Your task to perform on an android device: Add dell alienware to the cart on ebay.com, then select checkout. Image 0: 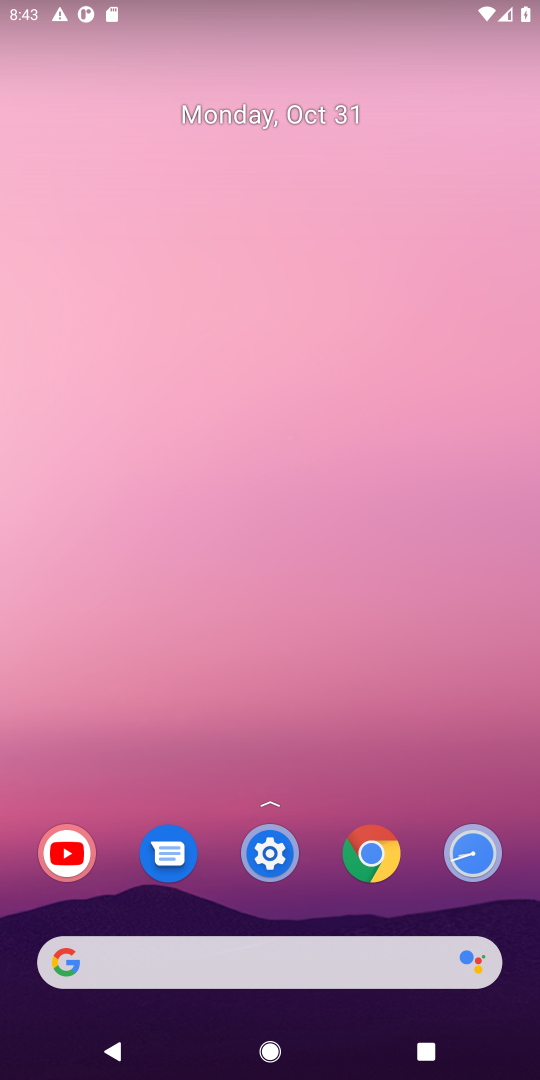
Step 0: click (247, 956)
Your task to perform on an android device: Add dell alienware to the cart on ebay.com, then select checkout. Image 1: 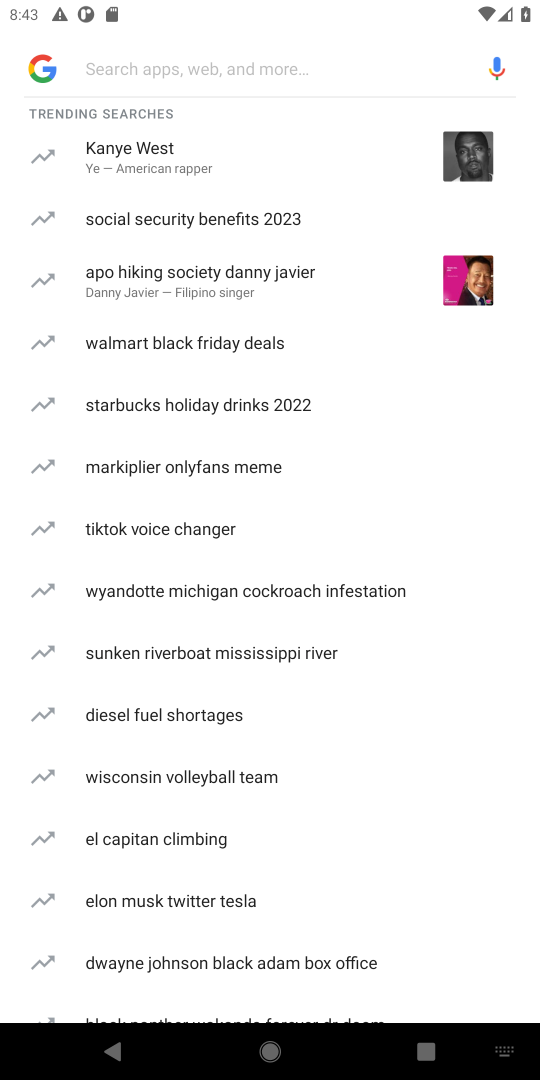
Step 1: type "ebay.com"
Your task to perform on an android device: Add dell alienware to the cart on ebay.com, then select checkout. Image 2: 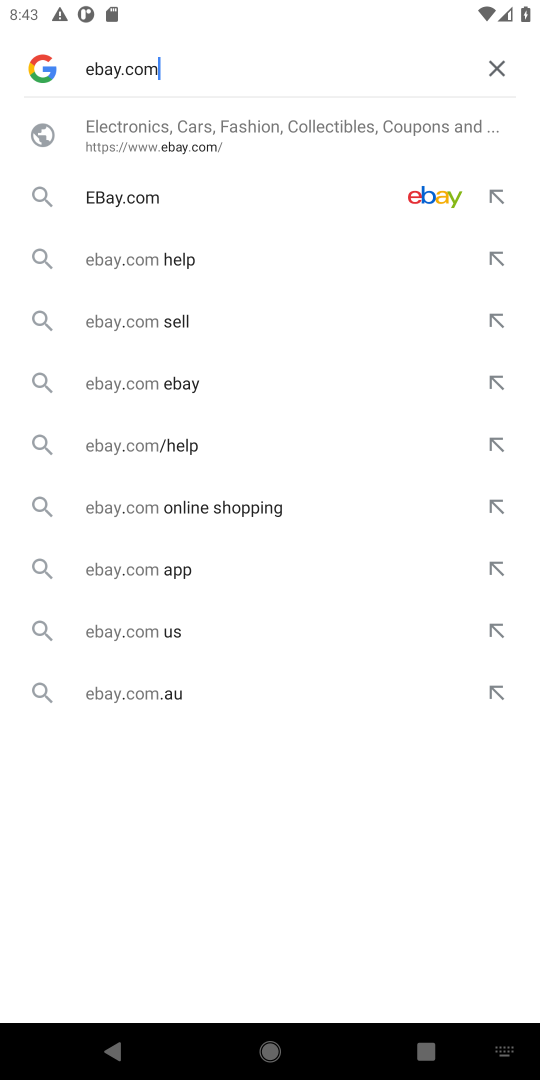
Step 2: click (109, 203)
Your task to perform on an android device: Add dell alienware to the cart on ebay.com, then select checkout. Image 3: 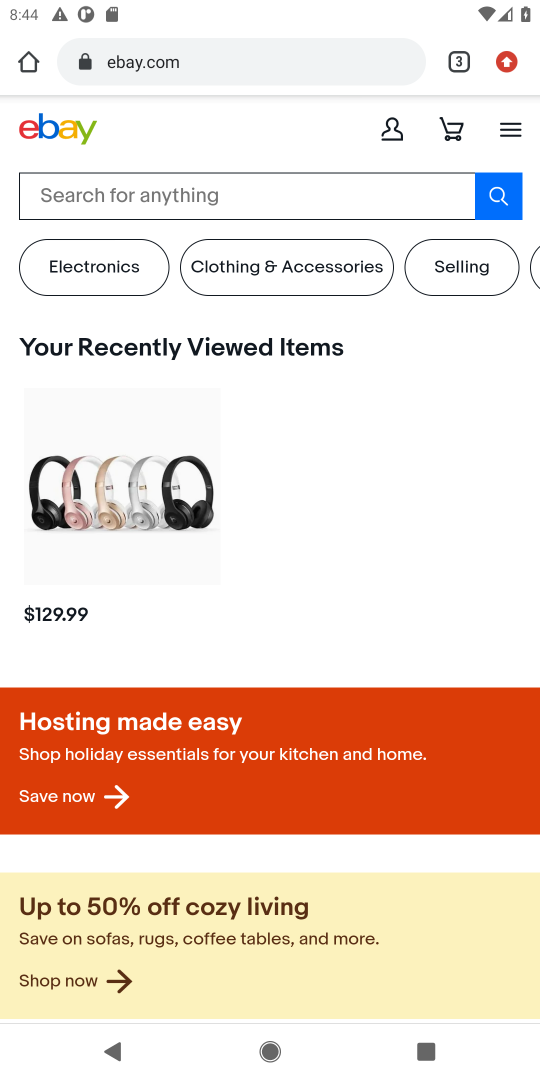
Step 3: click (131, 183)
Your task to perform on an android device: Add dell alienware to the cart on ebay.com, then select checkout. Image 4: 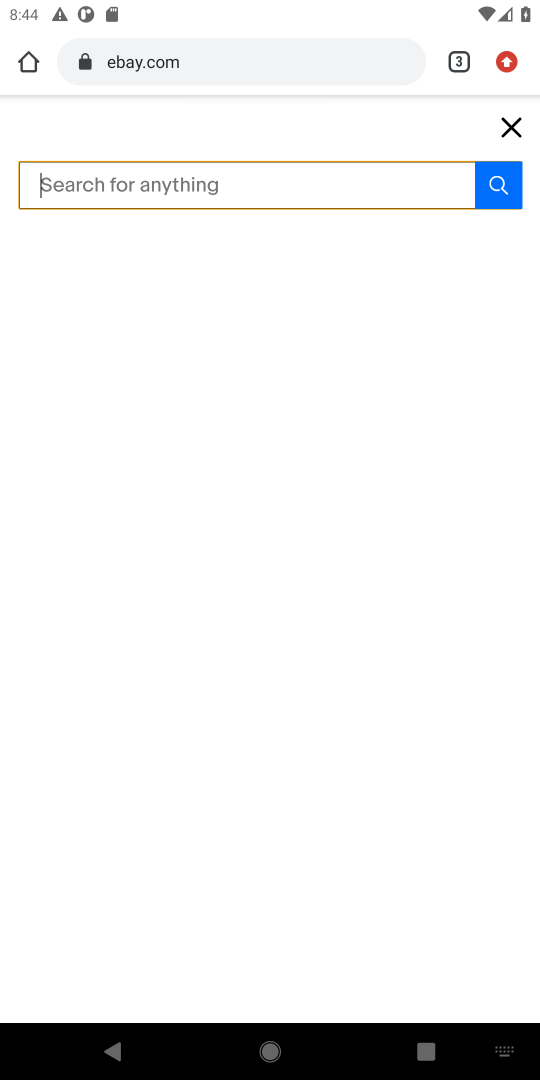
Step 4: type "dell alienware"
Your task to perform on an android device: Add dell alienware to the cart on ebay.com, then select checkout. Image 5: 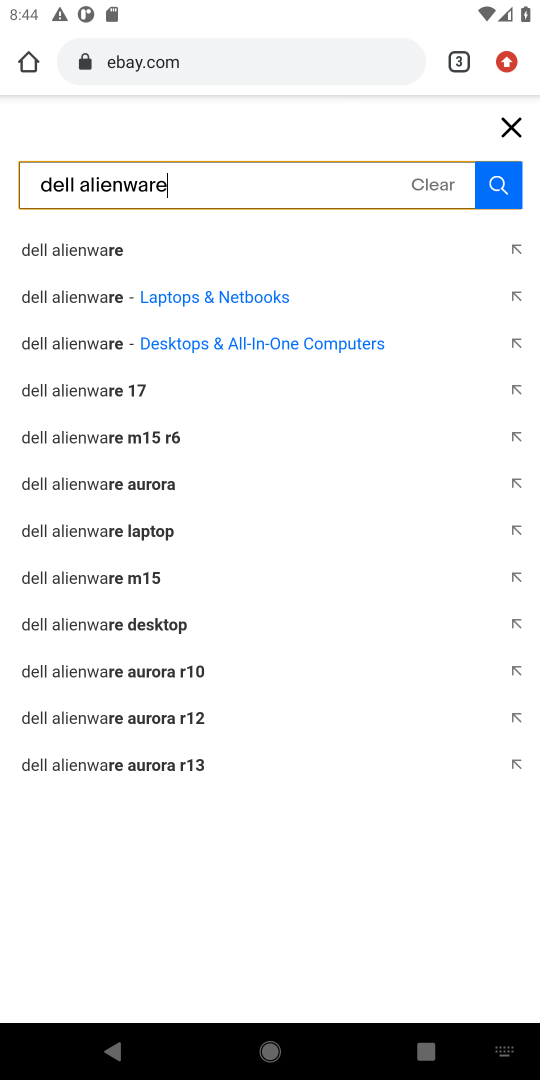
Step 5: click (59, 244)
Your task to perform on an android device: Add dell alienware to the cart on ebay.com, then select checkout. Image 6: 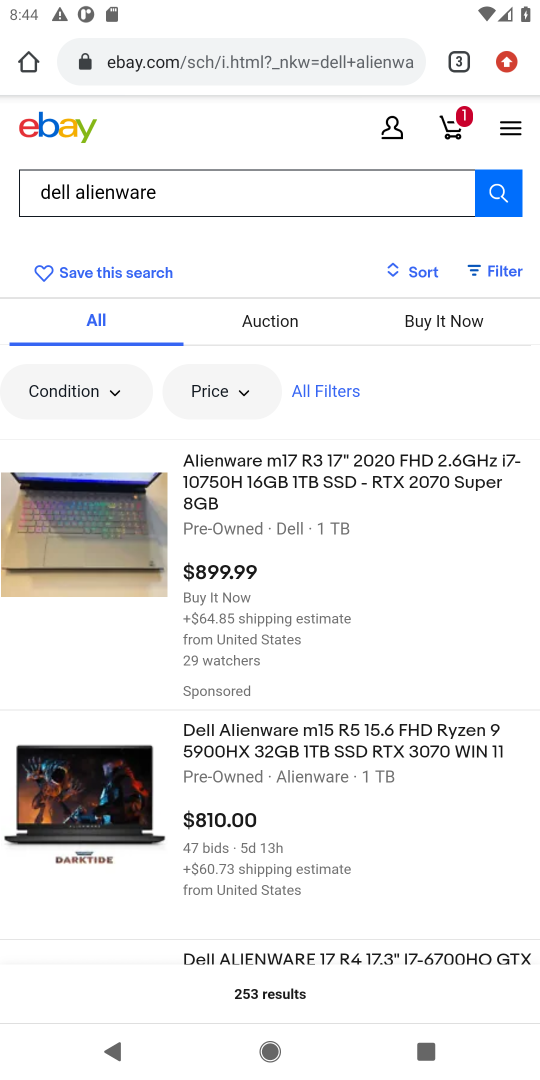
Step 6: click (326, 459)
Your task to perform on an android device: Add dell alienware to the cart on ebay.com, then select checkout. Image 7: 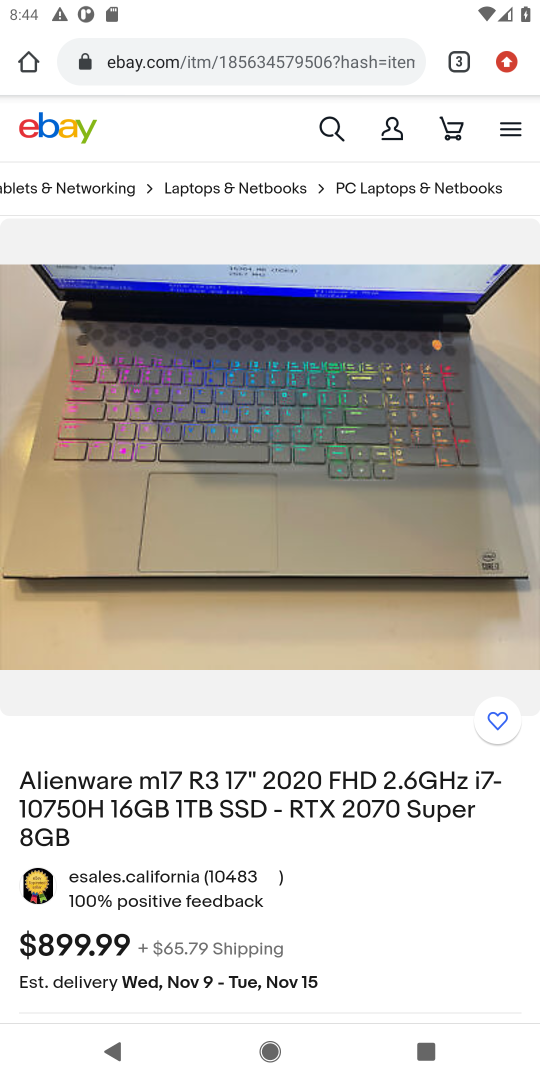
Step 7: drag from (394, 697) to (291, 322)
Your task to perform on an android device: Add dell alienware to the cart on ebay.com, then select checkout. Image 8: 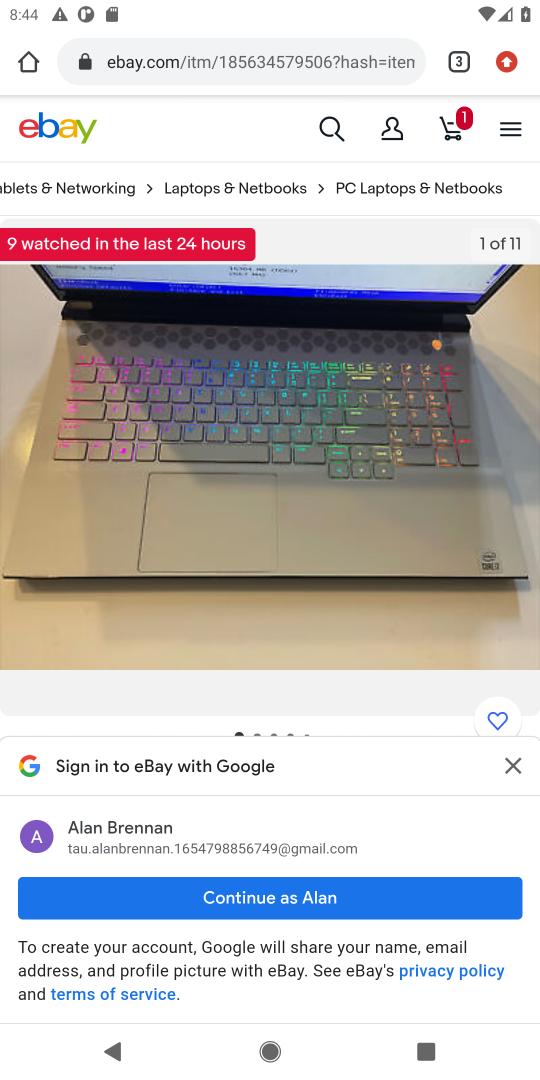
Step 8: drag from (380, 897) to (366, 542)
Your task to perform on an android device: Add dell alienware to the cart on ebay.com, then select checkout. Image 9: 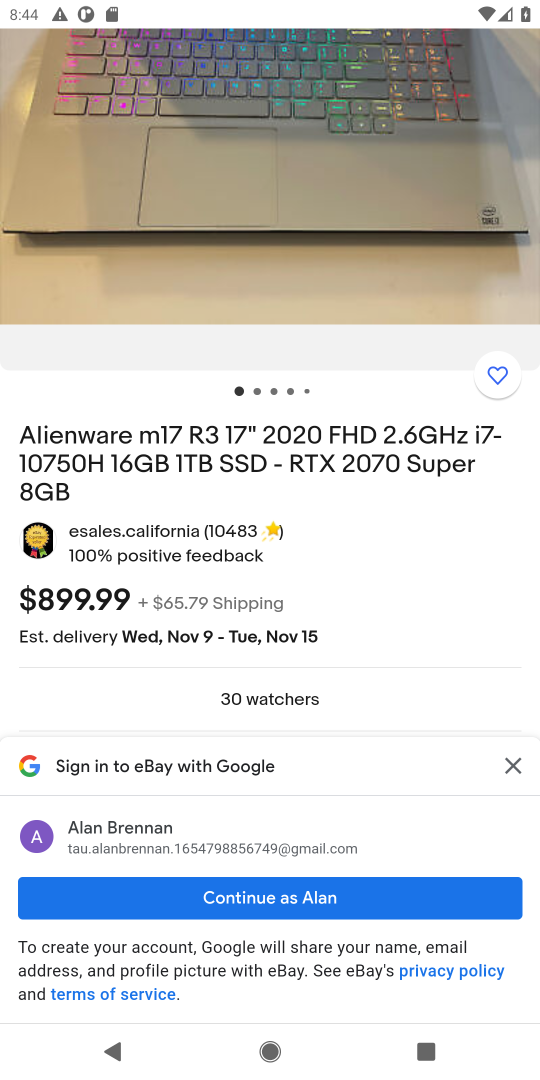
Step 9: click (513, 762)
Your task to perform on an android device: Add dell alienware to the cart on ebay.com, then select checkout. Image 10: 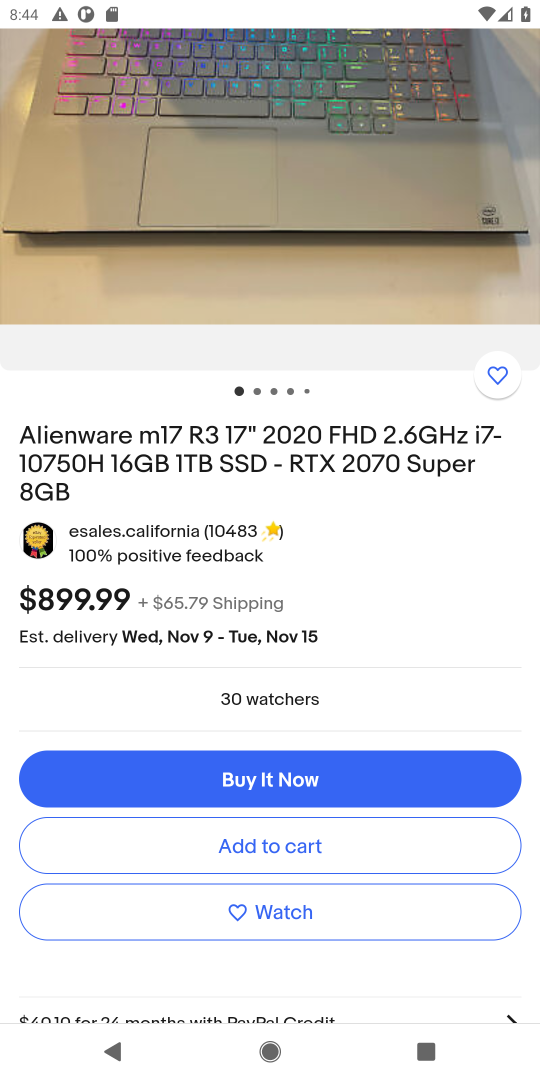
Step 10: click (298, 839)
Your task to perform on an android device: Add dell alienware to the cart on ebay.com, then select checkout. Image 11: 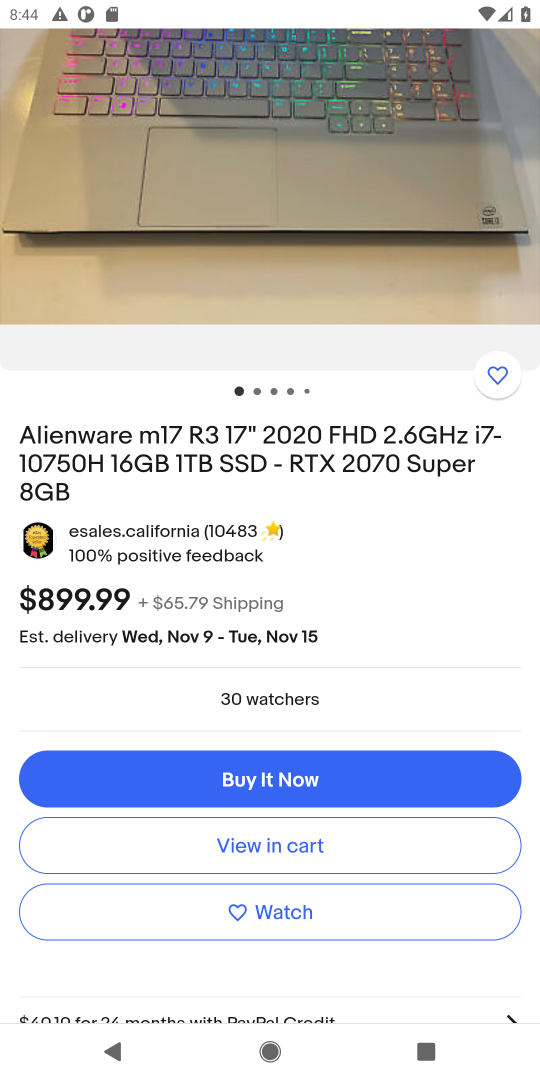
Step 11: click (266, 847)
Your task to perform on an android device: Add dell alienware to the cart on ebay.com, then select checkout. Image 12: 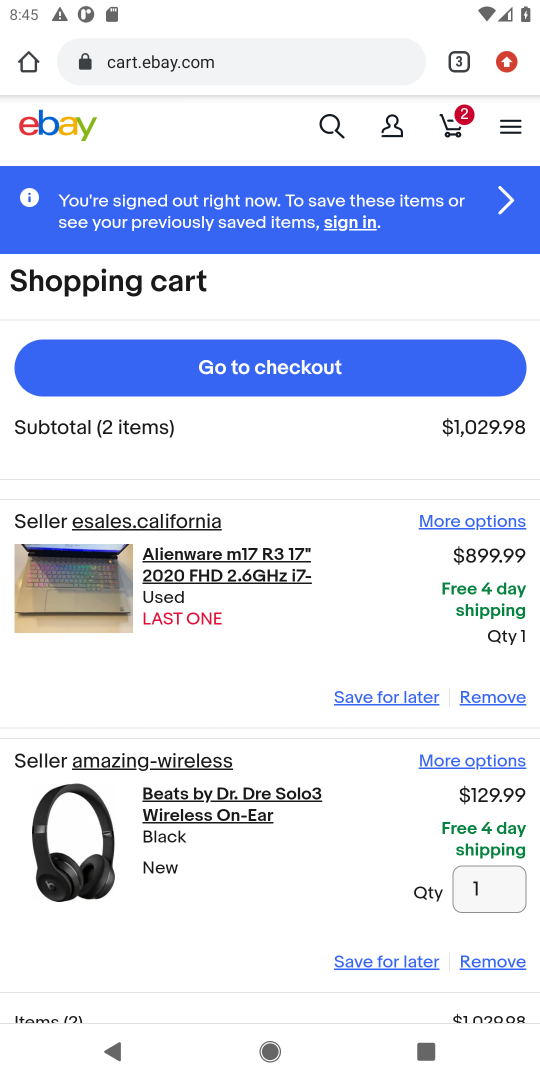
Step 12: click (276, 367)
Your task to perform on an android device: Add dell alienware to the cart on ebay.com, then select checkout. Image 13: 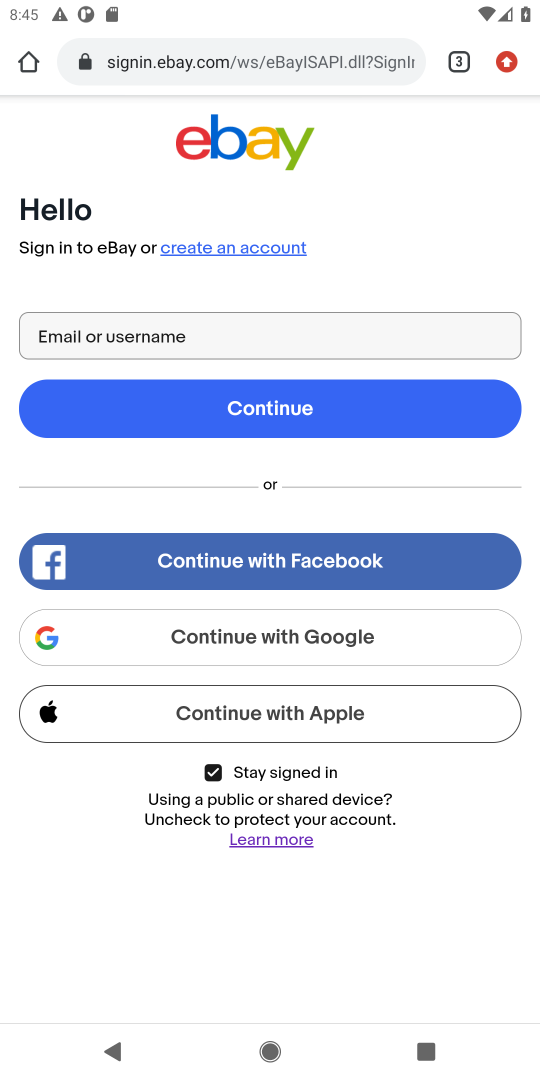
Step 13: task complete